Your task to perform on an android device: clear all cookies in the chrome app Image 0: 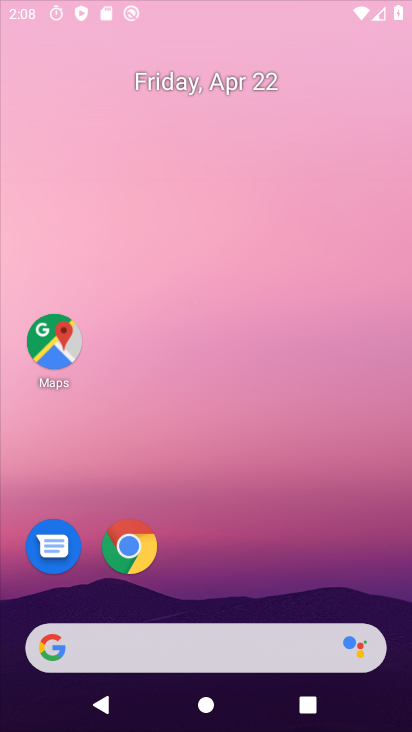
Step 0: click (262, 86)
Your task to perform on an android device: clear all cookies in the chrome app Image 1: 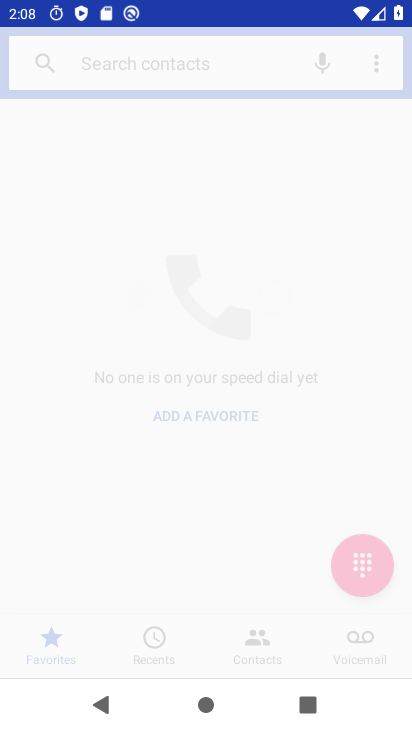
Step 1: drag from (224, 612) to (218, 80)
Your task to perform on an android device: clear all cookies in the chrome app Image 2: 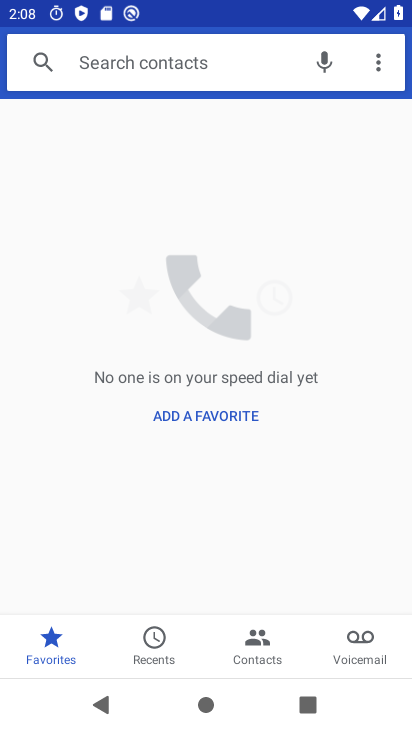
Step 2: press home button
Your task to perform on an android device: clear all cookies in the chrome app Image 3: 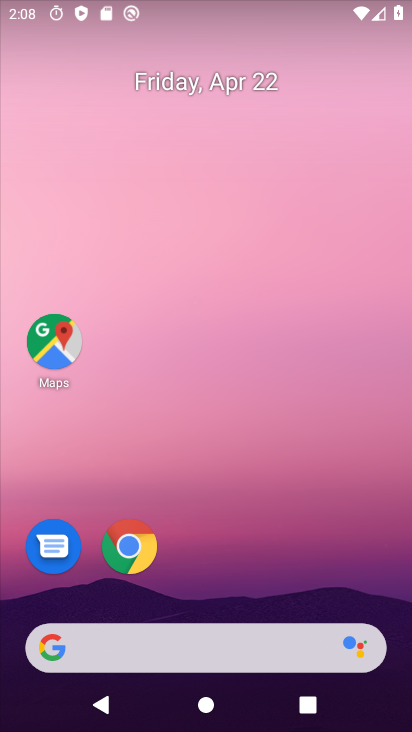
Step 3: drag from (201, 512) to (246, 108)
Your task to perform on an android device: clear all cookies in the chrome app Image 4: 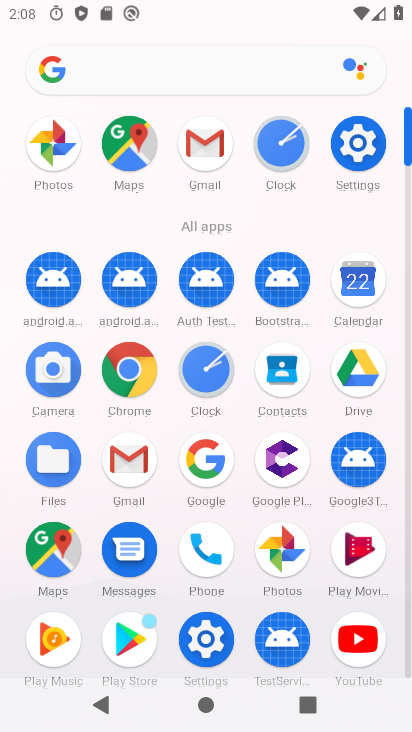
Step 4: click (129, 386)
Your task to perform on an android device: clear all cookies in the chrome app Image 5: 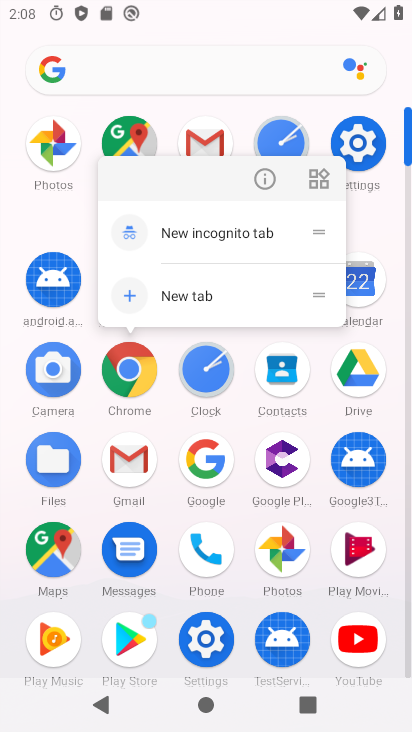
Step 5: click (270, 178)
Your task to perform on an android device: clear all cookies in the chrome app Image 6: 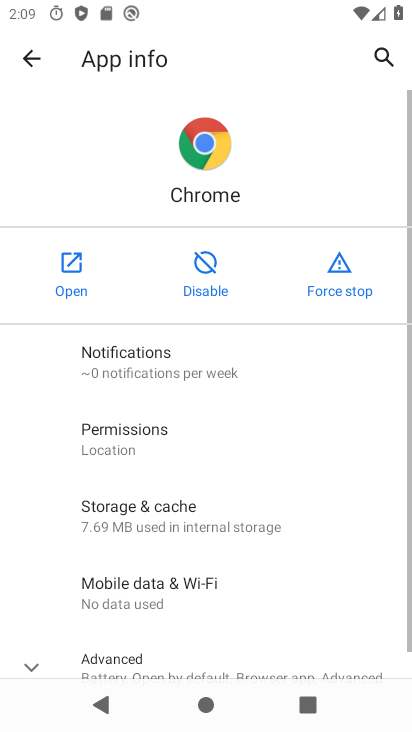
Step 6: click (63, 265)
Your task to perform on an android device: clear all cookies in the chrome app Image 7: 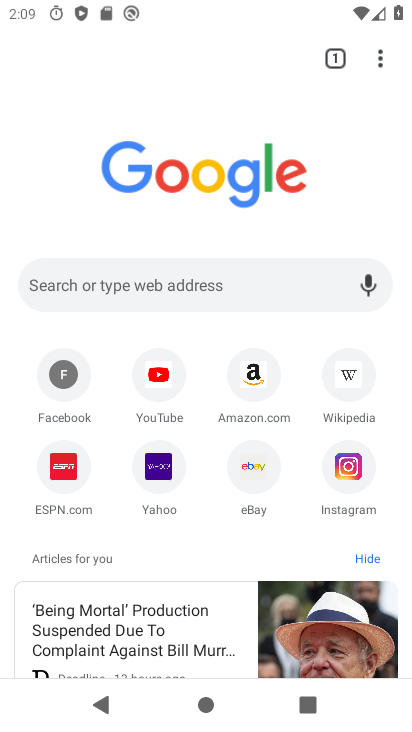
Step 7: drag from (380, 53) to (307, 482)
Your task to perform on an android device: clear all cookies in the chrome app Image 8: 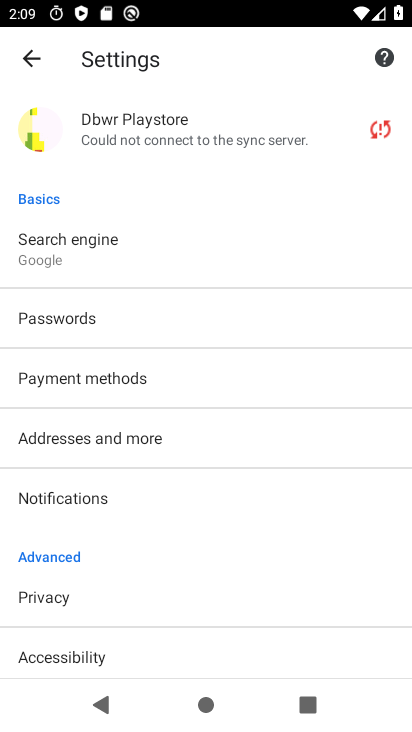
Step 8: drag from (179, 555) to (267, 209)
Your task to perform on an android device: clear all cookies in the chrome app Image 9: 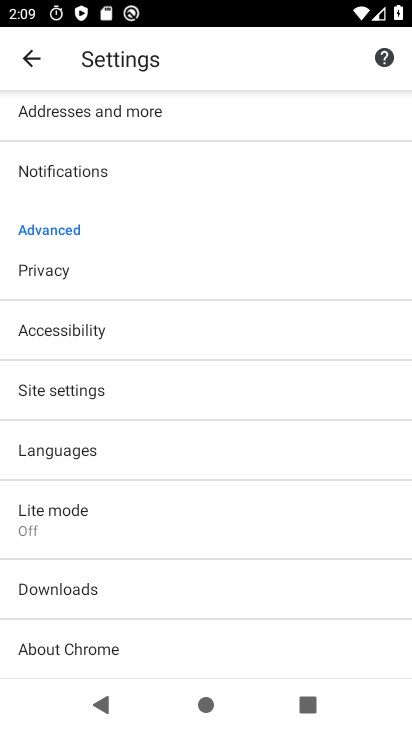
Step 9: click (35, 44)
Your task to perform on an android device: clear all cookies in the chrome app Image 10: 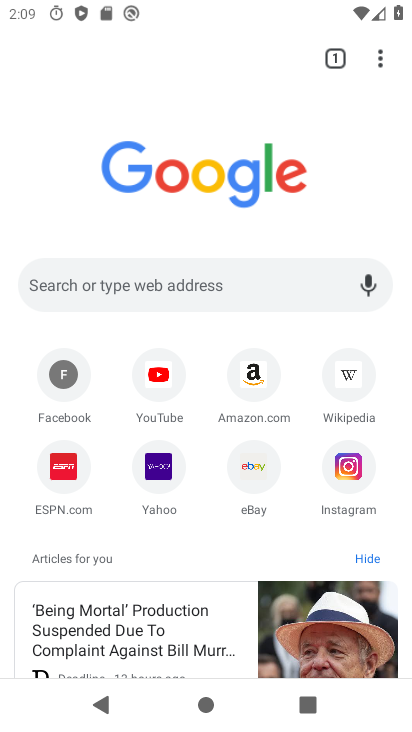
Step 10: task complete